Your task to perform on an android device: open app "Spotify: Music and Podcasts" (install if not already installed) and enter user name: "principled@inbox.com" and password: "arrests" Image 0: 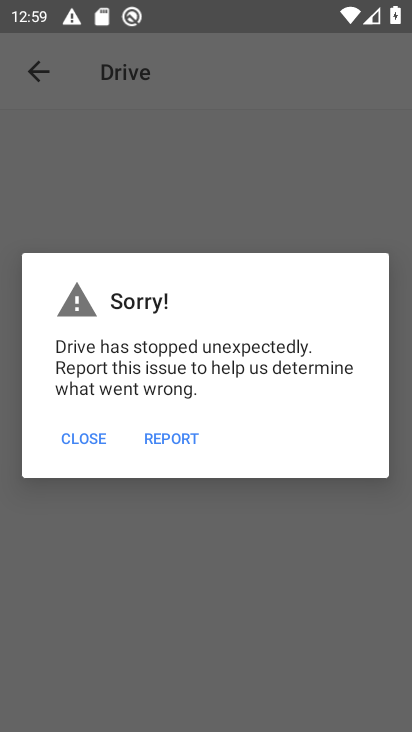
Step 0: press home button
Your task to perform on an android device: open app "Spotify: Music and Podcasts" (install if not already installed) and enter user name: "principled@inbox.com" and password: "arrests" Image 1: 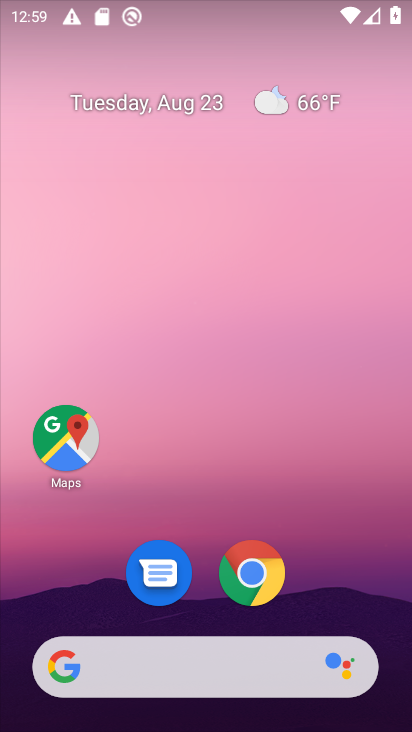
Step 1: drag from (192, 512) to (229, 96)
Your task to perform on an android device: open app "Spotify: Music and Podcasts" (install if not already installed) and enter user name: "principled@inbox.com" and password: "arrests" Image 2: 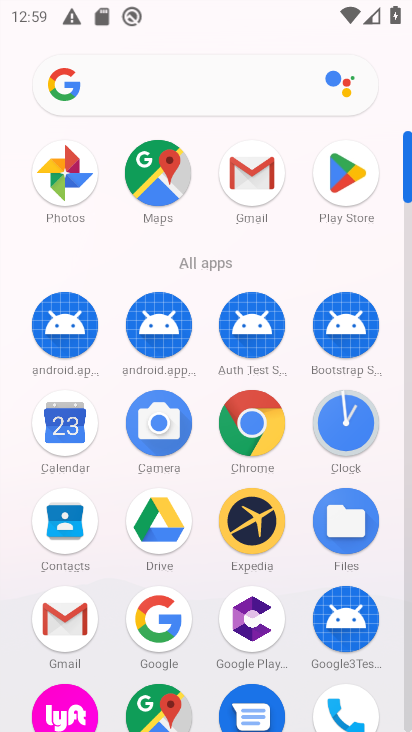
Step 2: click (355, 142)
Your task to perform on an android device: open app "Spotify: Music and Podcasts" (install if not already installed) and enter user name: "principled@inbox.com" and password: "arrests" Image 3: 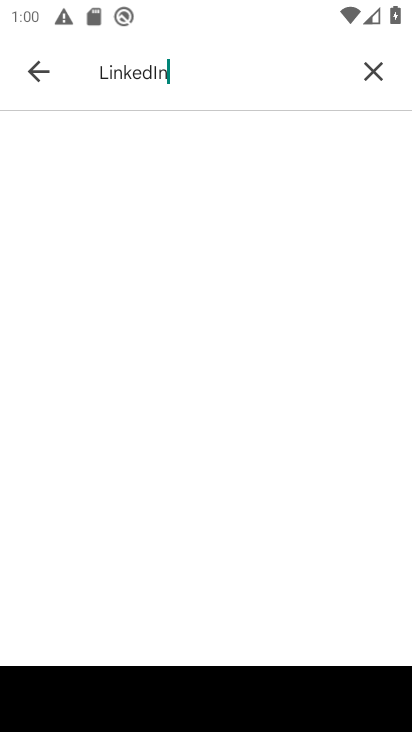
Step 3: click (376, 70)
Your task to perform on an android device: open app "Spotify: Music and Podcasts" (install if not already installed) and enter user name: "principled@inbox.com" and password: "arrests" Image 4: 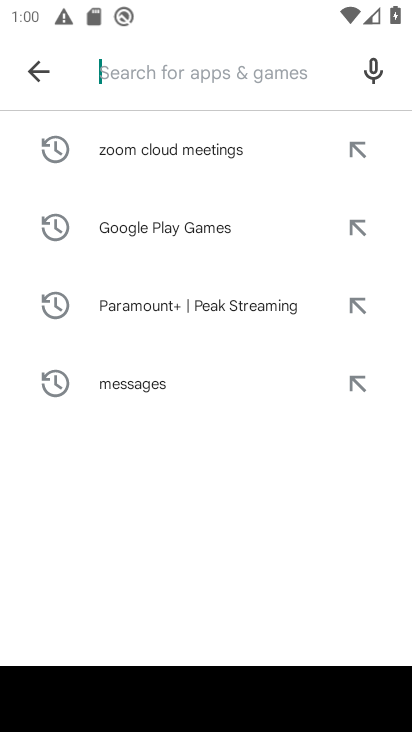
Step 4: type "Spotify: Music and Podcasts"
Your task to perform on an android device: open app "Spotify: Music and Podcasts" (install if not already installed) and enter user name: "principled@inbox.com" and password: "arrests" Image 5: 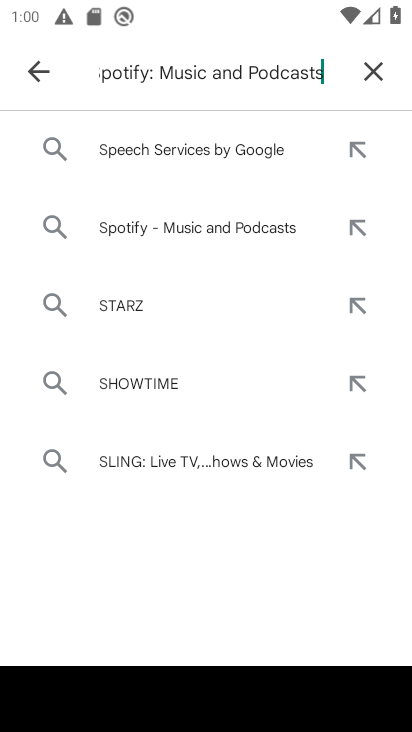
Step 5: type ""
Your task to perform on an android device: open app "Spotify: Music and Podcasts" (install if not already installed) and enter user name: "principled@inbox.com" and password: "arrests" Image 6: 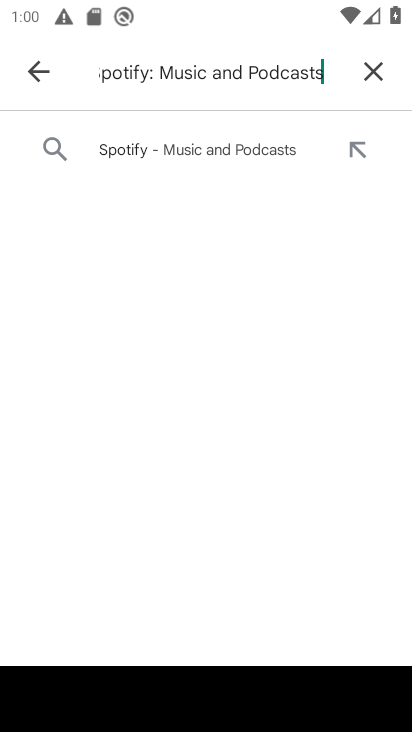
Step 6: click (230, 151)
Your task to perform on an android device: open app "Spotify: Music and Podcasts" (install if not already installed) and enter user name: "principled@inbox.com" and password: "arrests" Image 7: 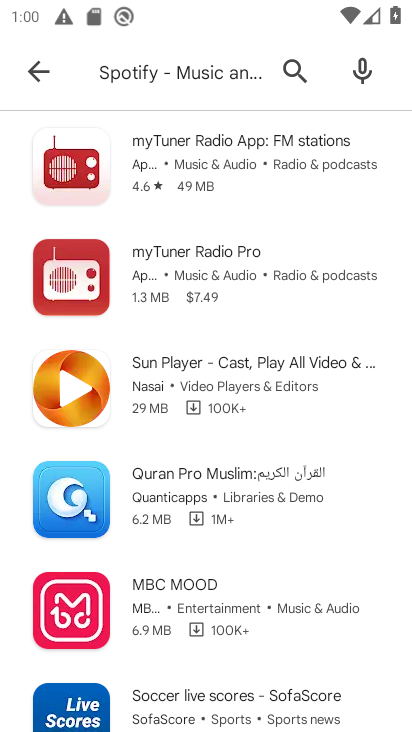
Step 7: task complete